Your task to perform on an android device: turn on the 12-hour format for clock Image 0: 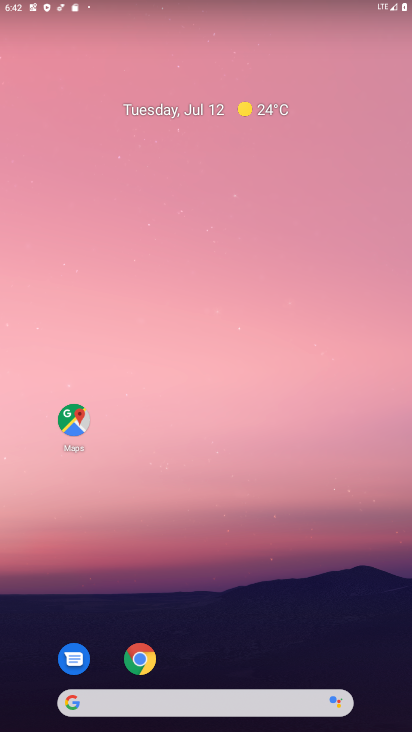
Step 0: drag from (358, 698) to (273, 16)
Your task to perform on an android device: turn on the 12-hour format for clock Image 1: 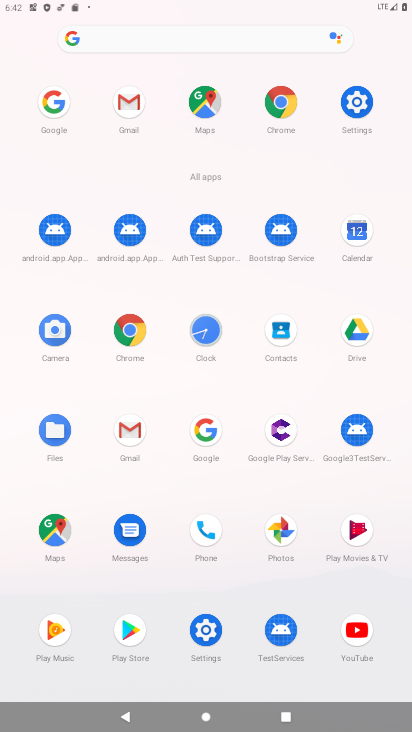
Step 1: click (217, 329)
Your task to perform on an android device: turn on the 12-hour format for clock Image 2: 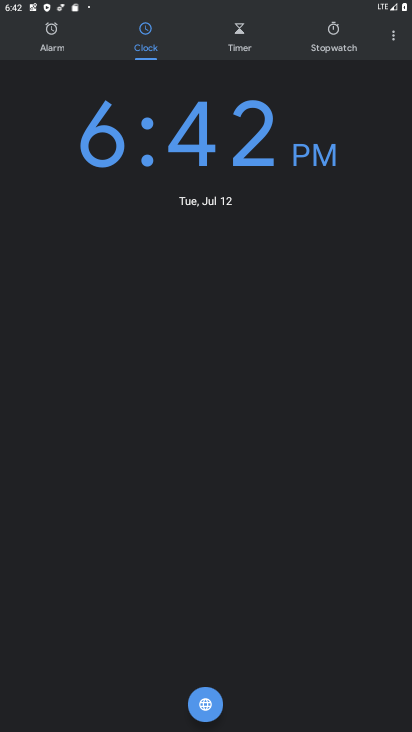
Step 2: click (395, 27)
Your task to perform on an android device: turn on the 12-hour format for clock Image 3: 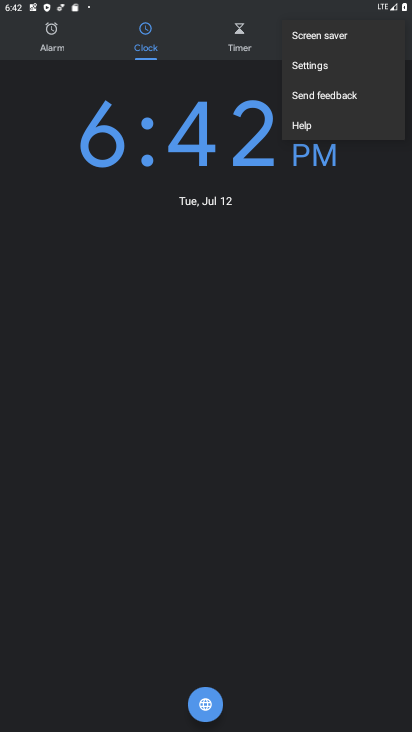
Step 3: click (315, 65)
Your task to perform on an android device: turn on the 12-hour format for clock Image 4: 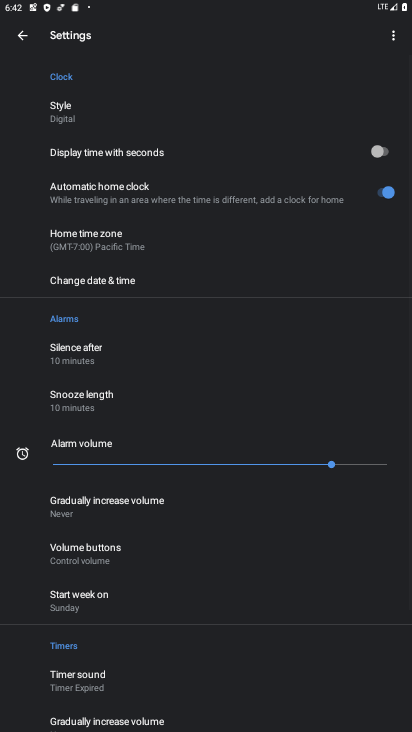
Step 4: click (117, 273)
Your task to perform on an android device: turn on the 12-hour format for clock Image 5: 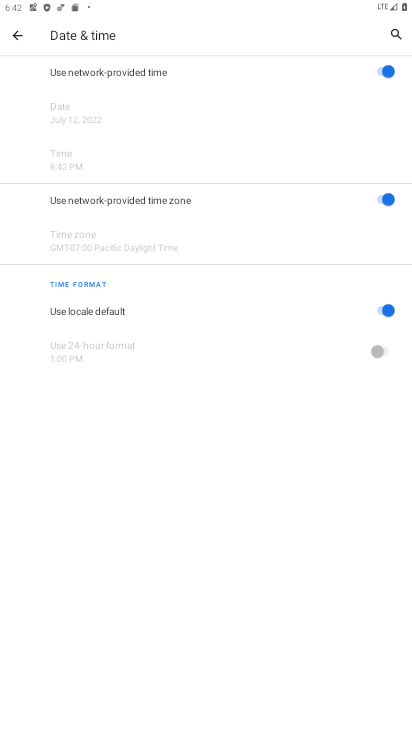
Step 5: task complete